Your task to perform on an android device: toggle notification dots Image 0: 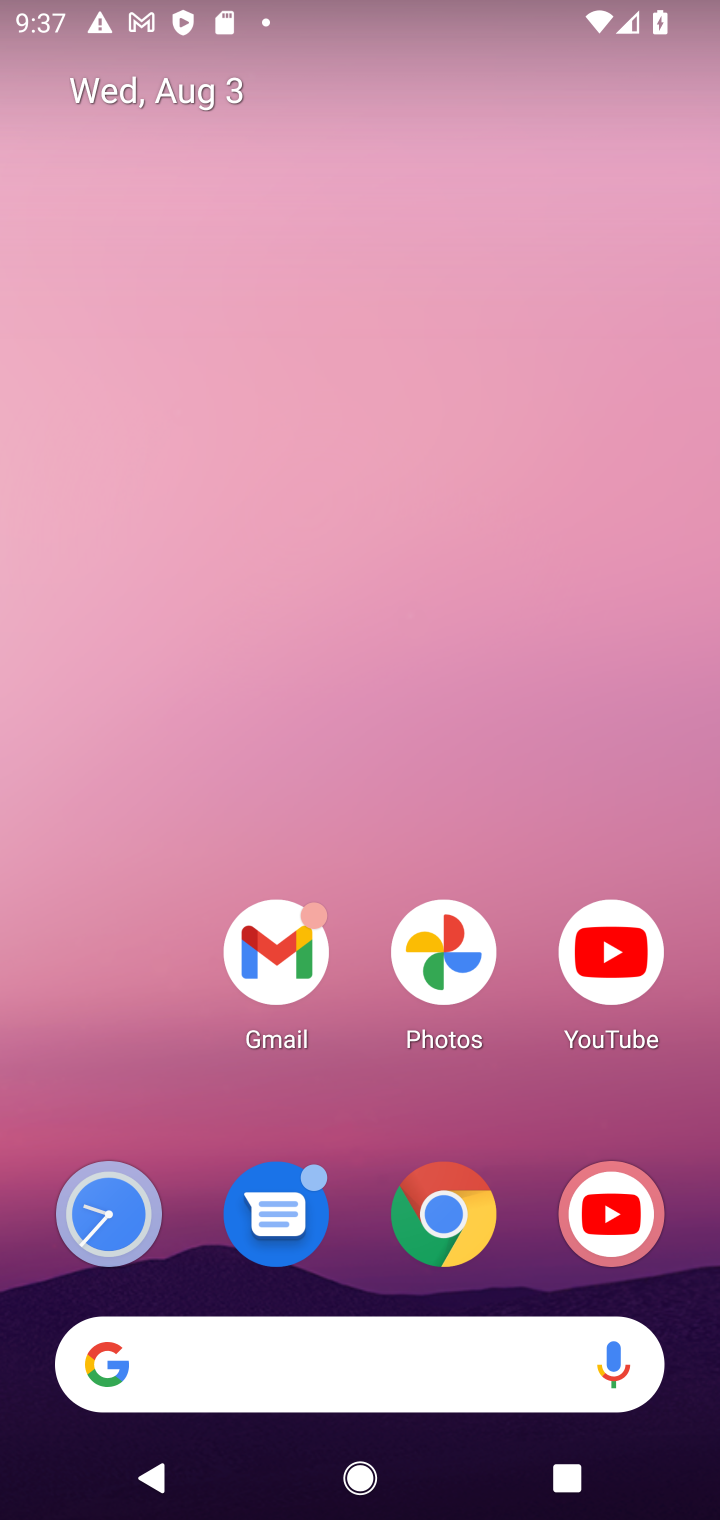
Step 0: press home button
Your task to perform on an android device: toggle notification dots Image 1: 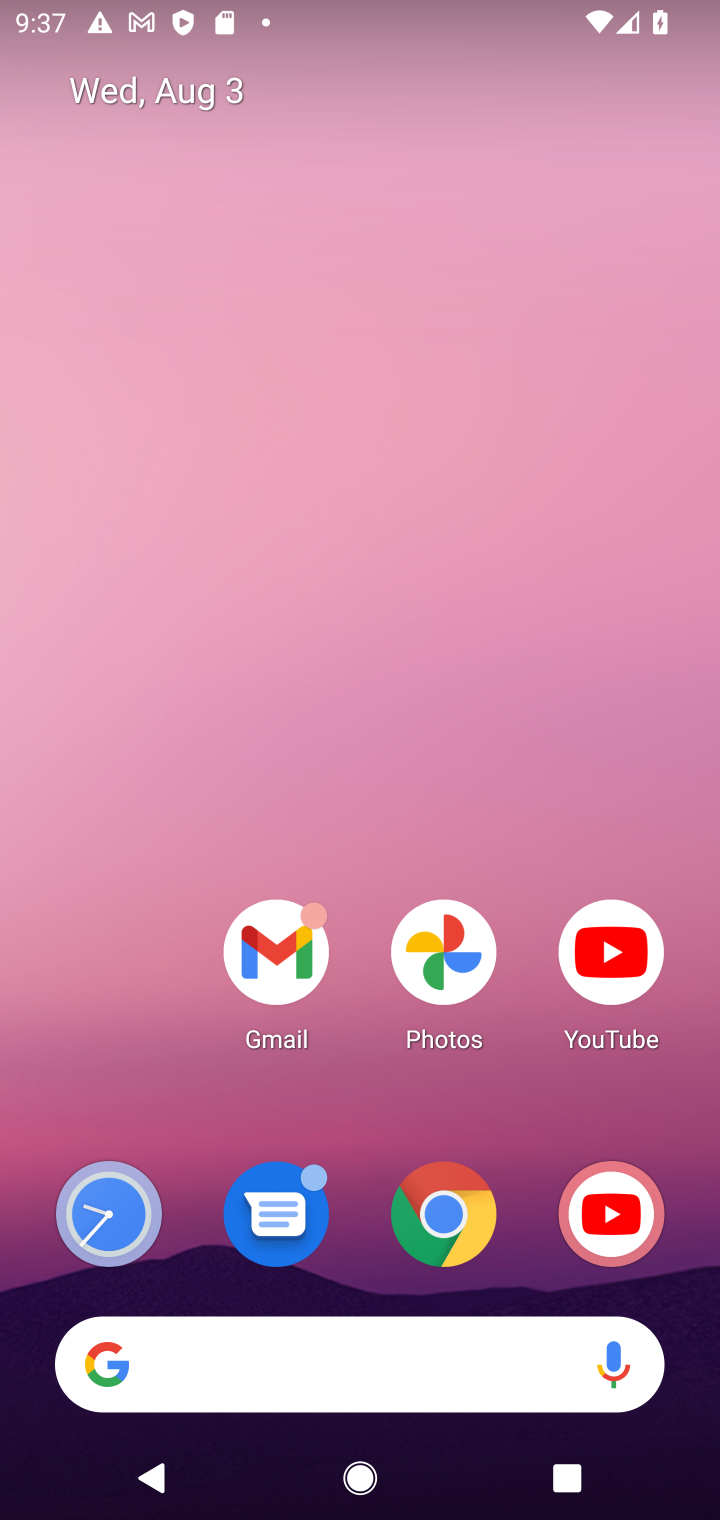
Step 1: drag from (332, 1057) to (510, 98)
Your task to perform on an android device: toggle notification dots Image 2: 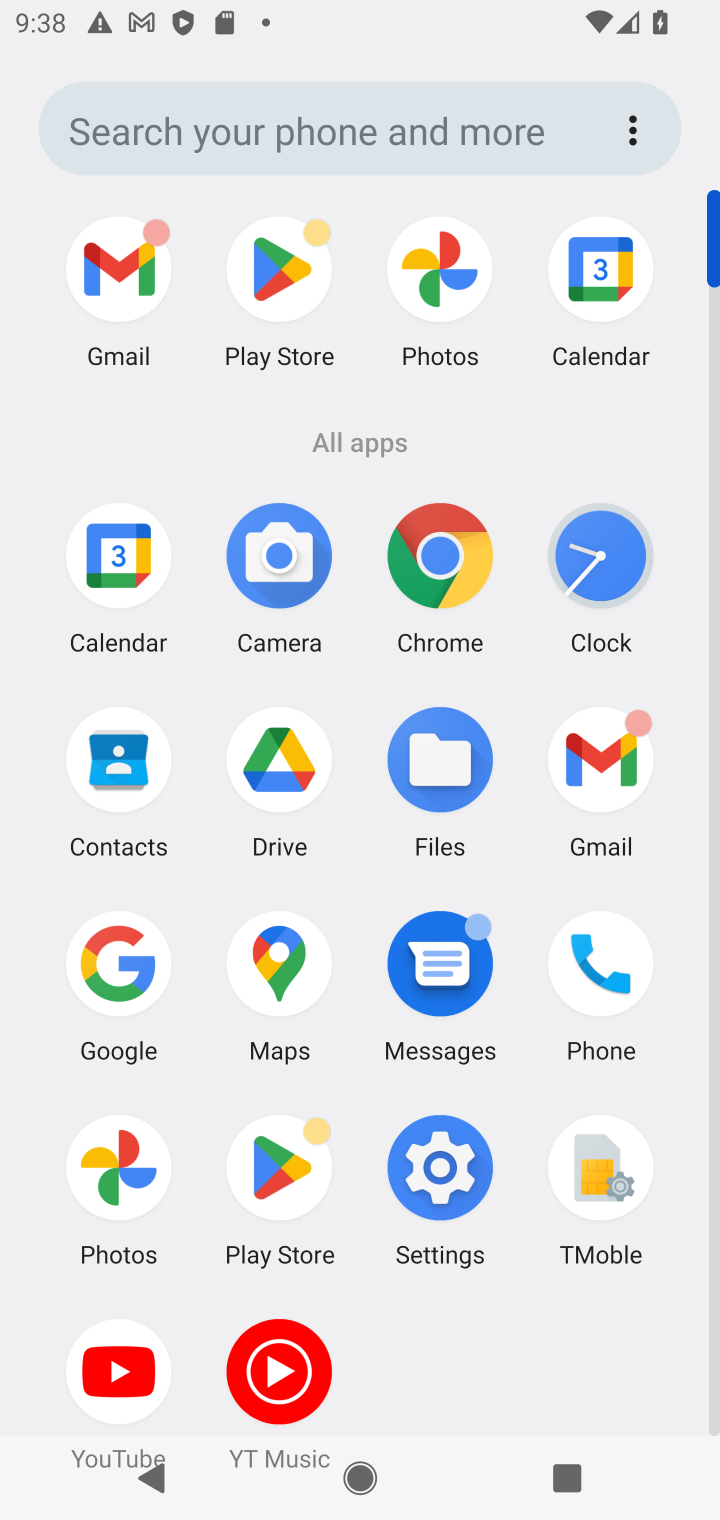
Step 2: click (443, 1151)
Your task to perform on an android device: toggle notification dots Image 3: 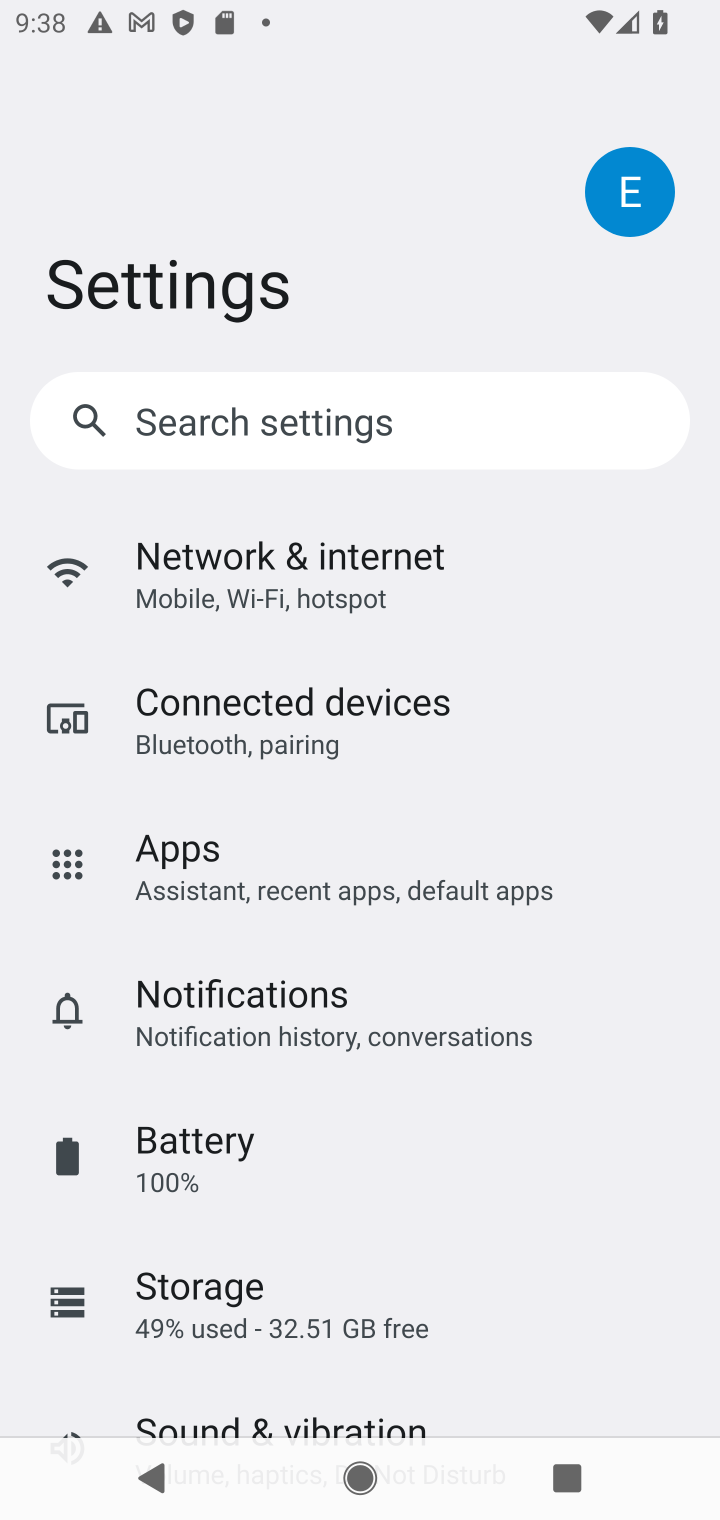
Step 3: click (267, 1016)
Your task to perform on an android device: toggle notification dots Image 4: 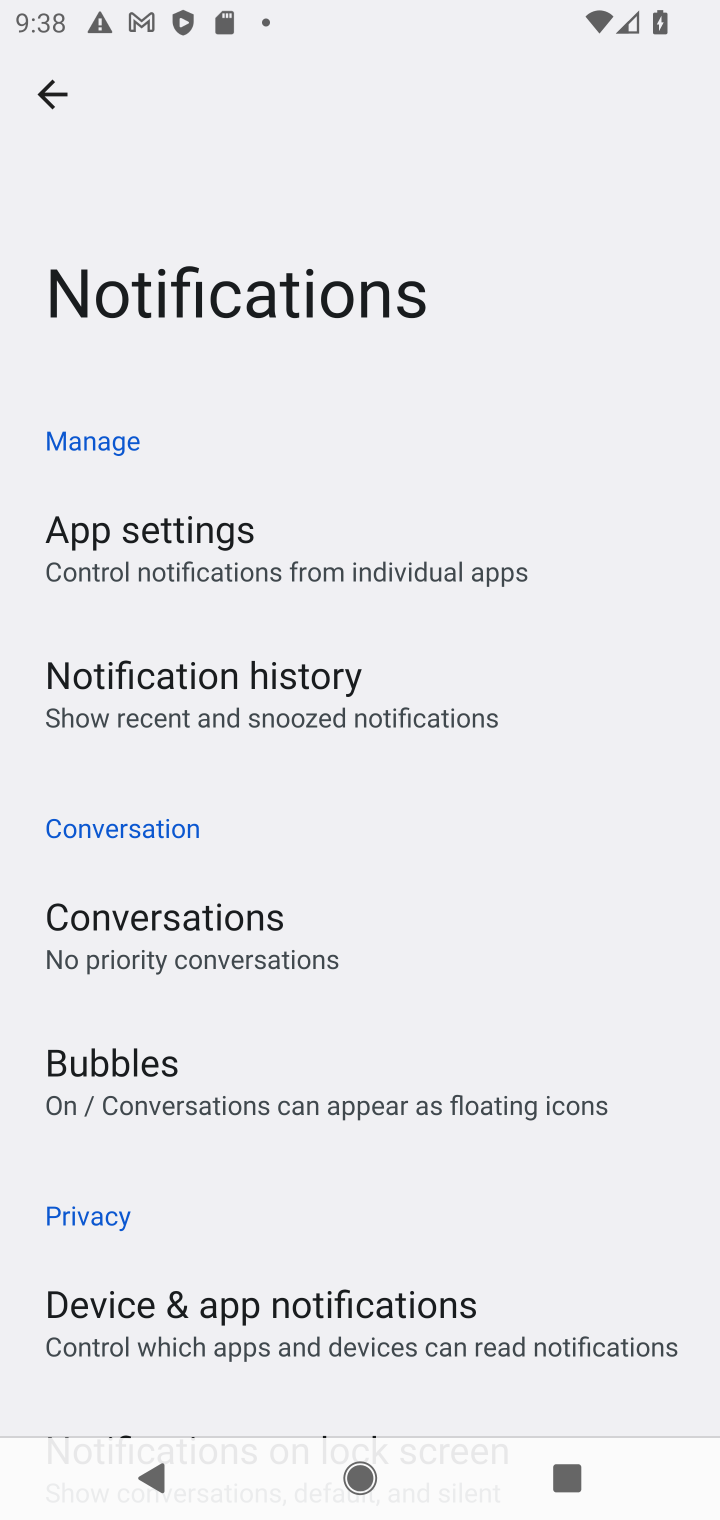
Step 4: drag from (390, 1117) to (366, 327)
Your task to perform on an android device: toggle notification dots Image 5: 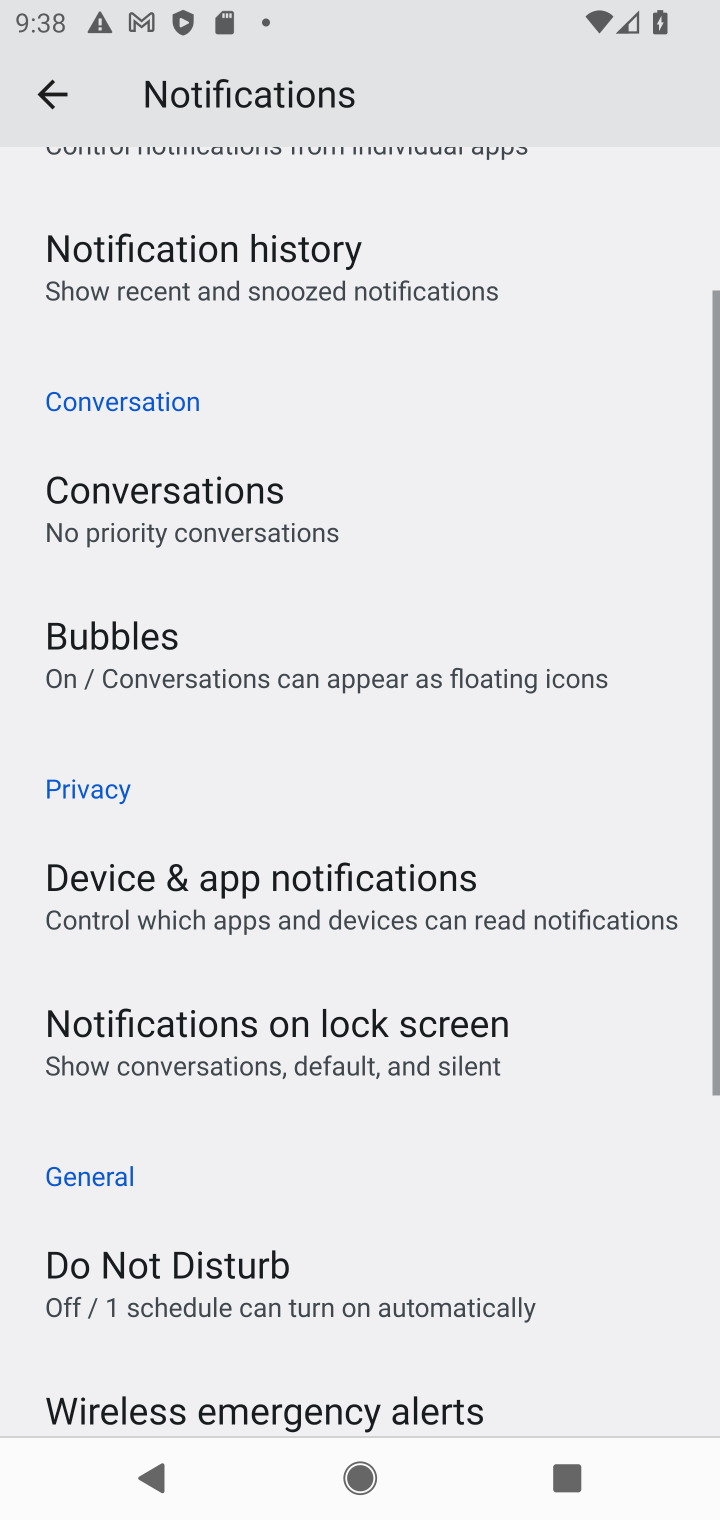
Step 5: drag from (222, 1296) to (193, 336)
Your task to perform on an android device: toggle notification dots Image 6: 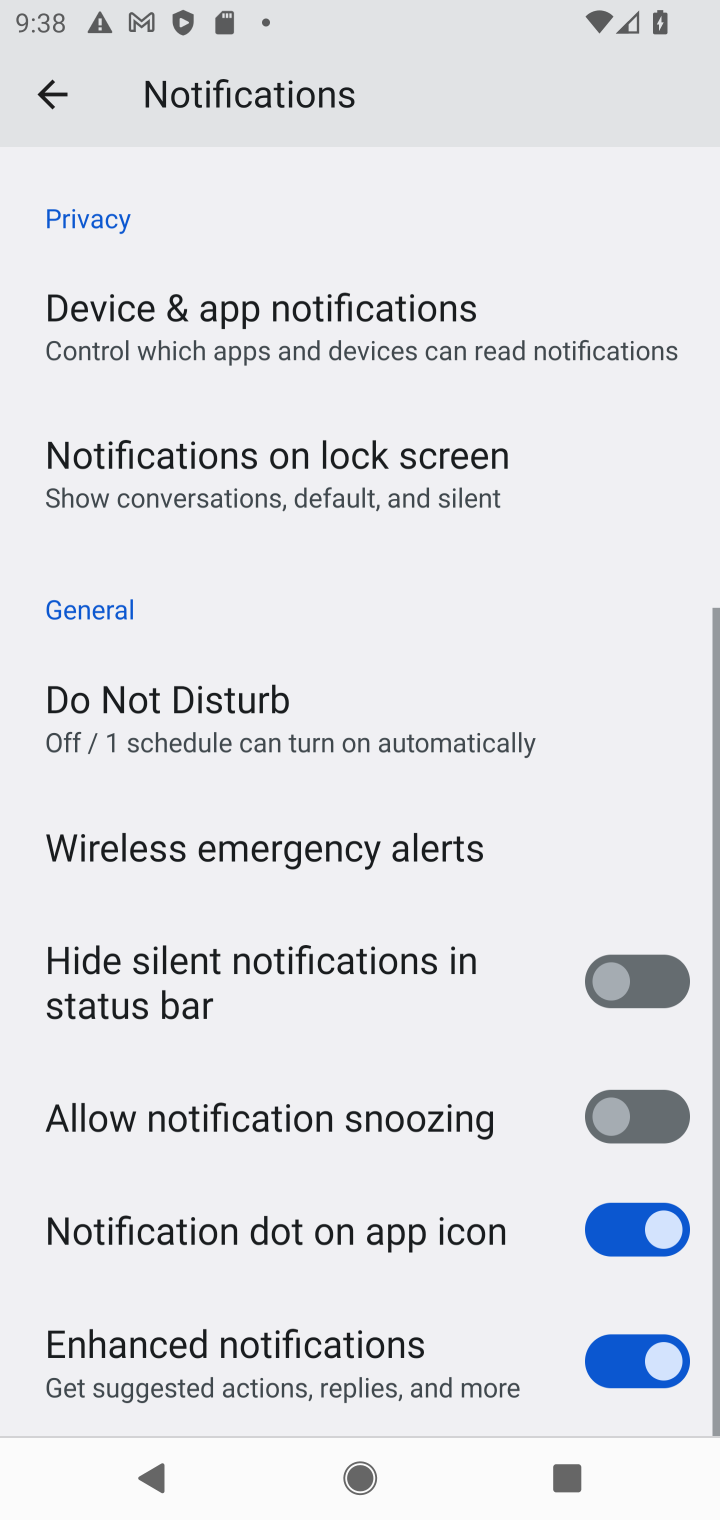
Step 6: drag from (187, 932) to (191, 321)
Your task to perform on an android device: toggle notification dots Image 7: 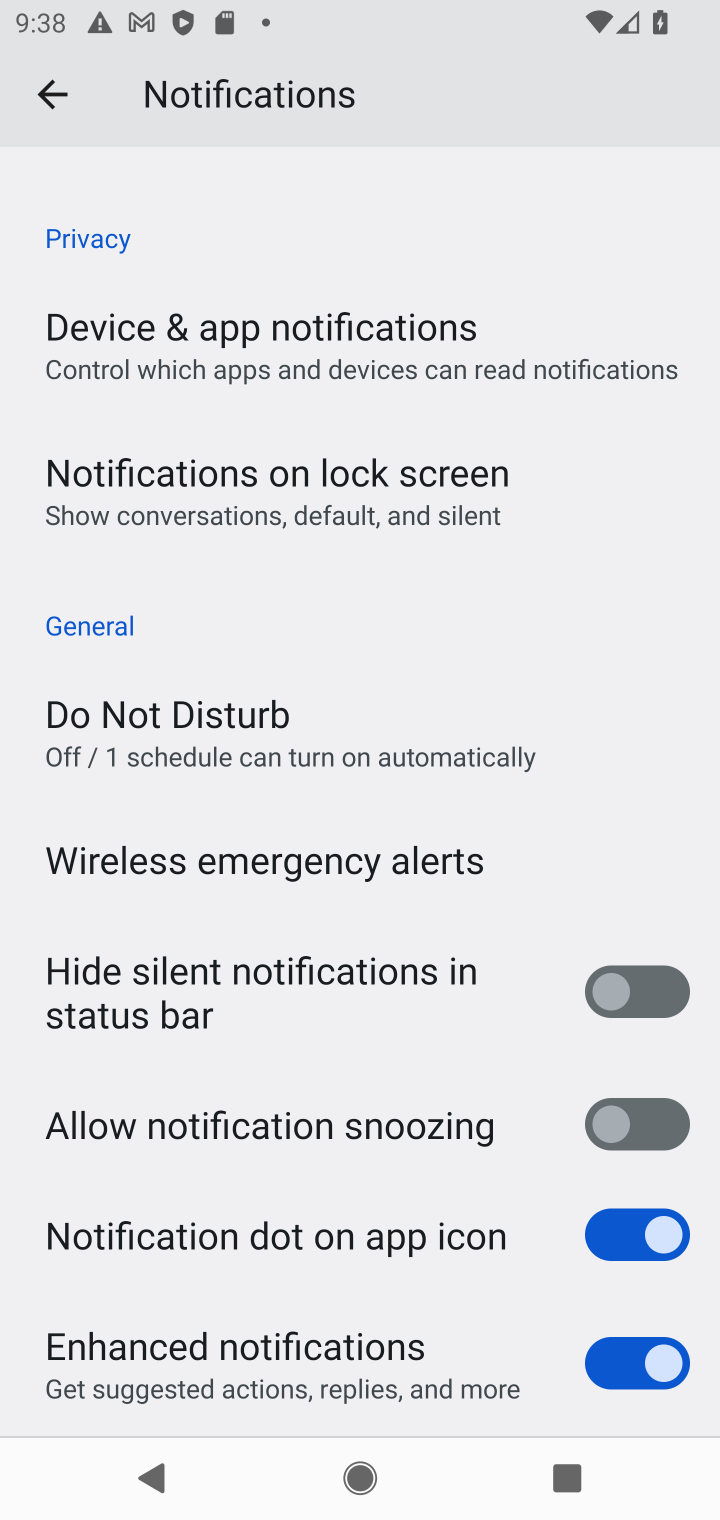
Step 7: drag from (270, 789) to (263, 399)
Your task to perform on an android device: toggle notification dots Image 8: 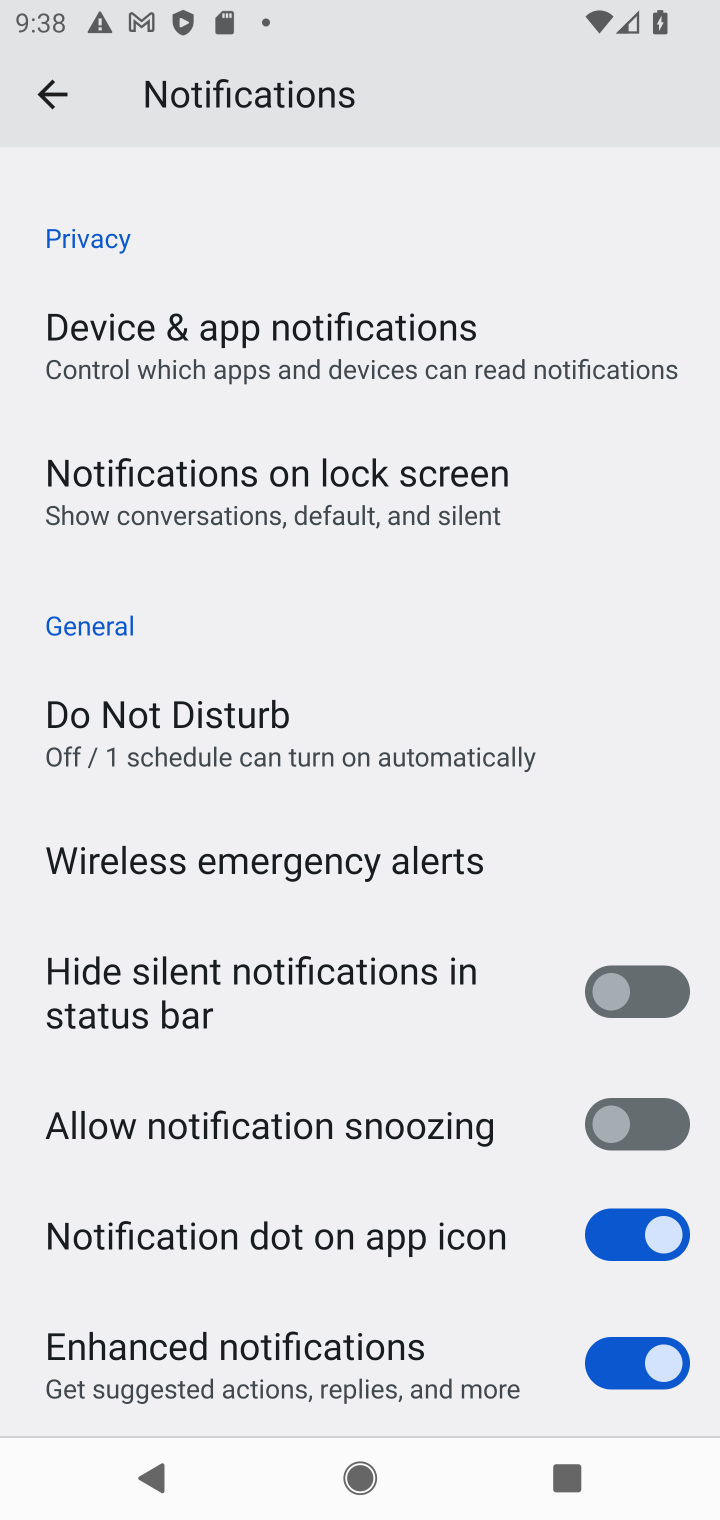
Step 8: click (624, 1239)
Your task to perform on an android device: toggle notification dots Image 9: 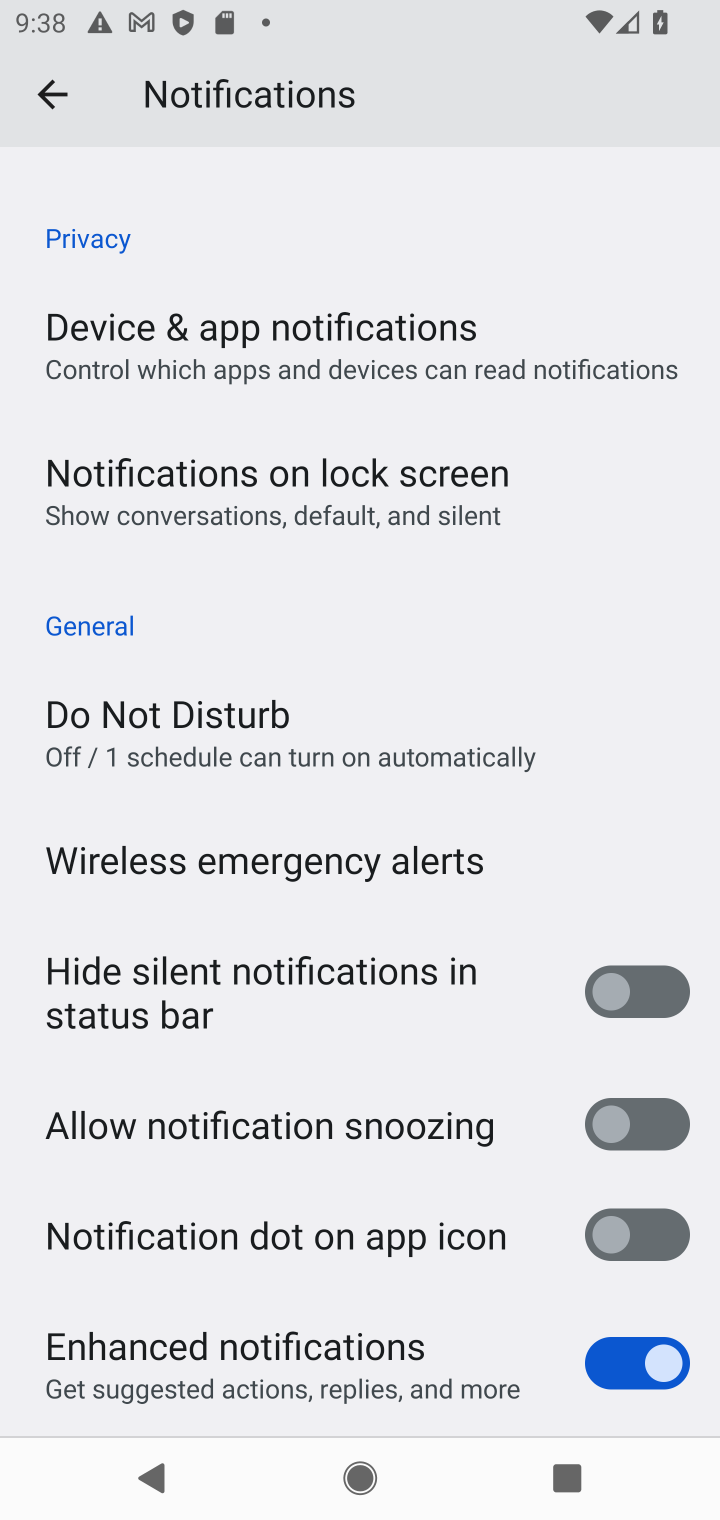
Step 9: task complete